Your task to perform on an android device: Clear the shopping cart on ebay.com. Image 0: 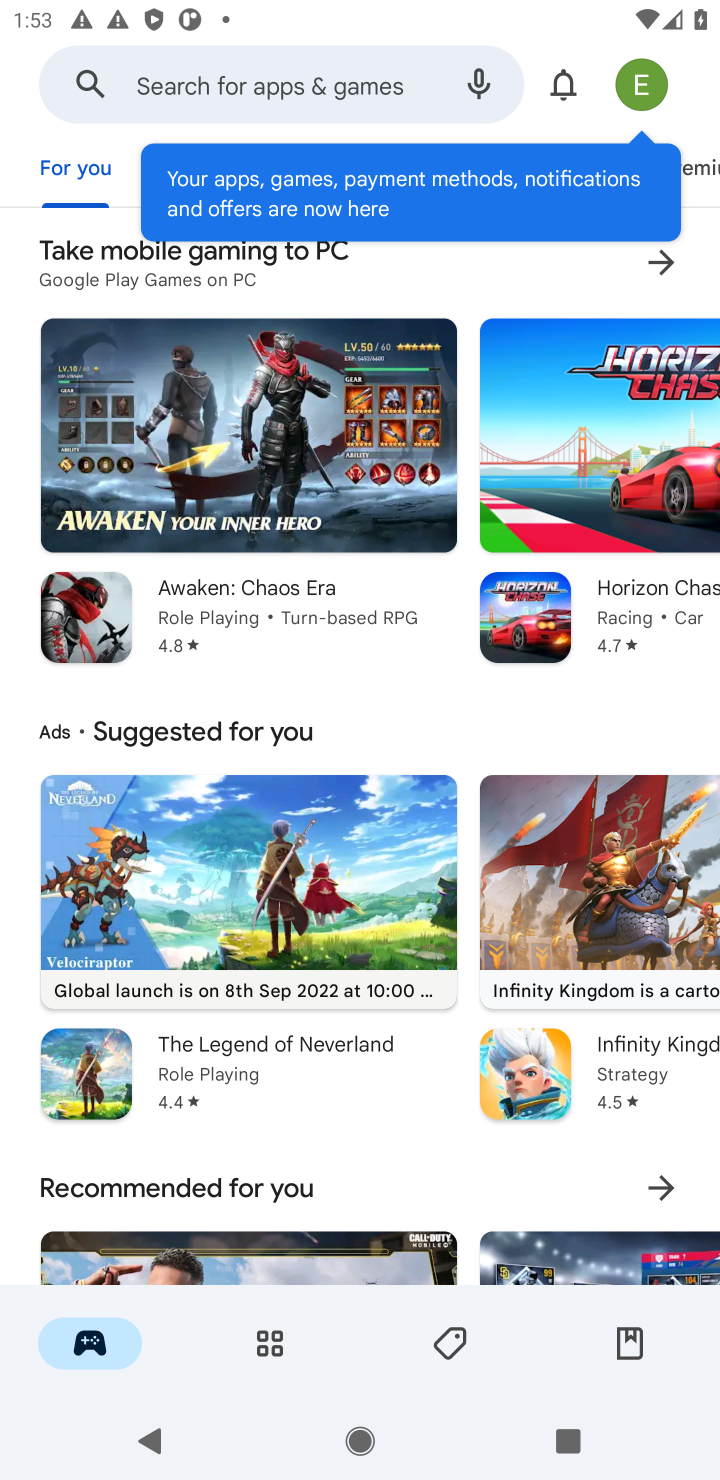
Step 0: press home button
Your task to perform on an android device: Clear the shopping cart on ebay.com. Image 1: 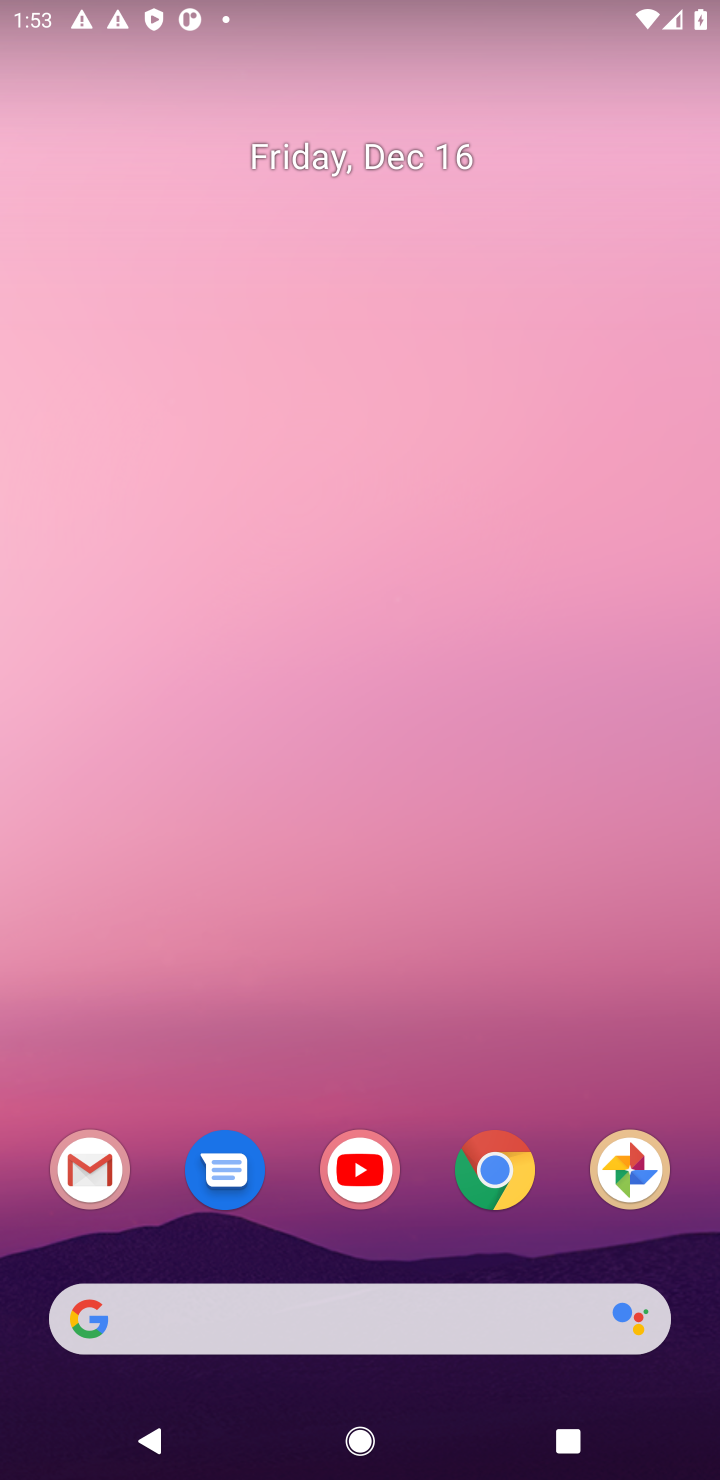
Step 1: click (484, 1169)
Your task to perform on an android device: Clear the shopping cart on ebay.com. Image 2: 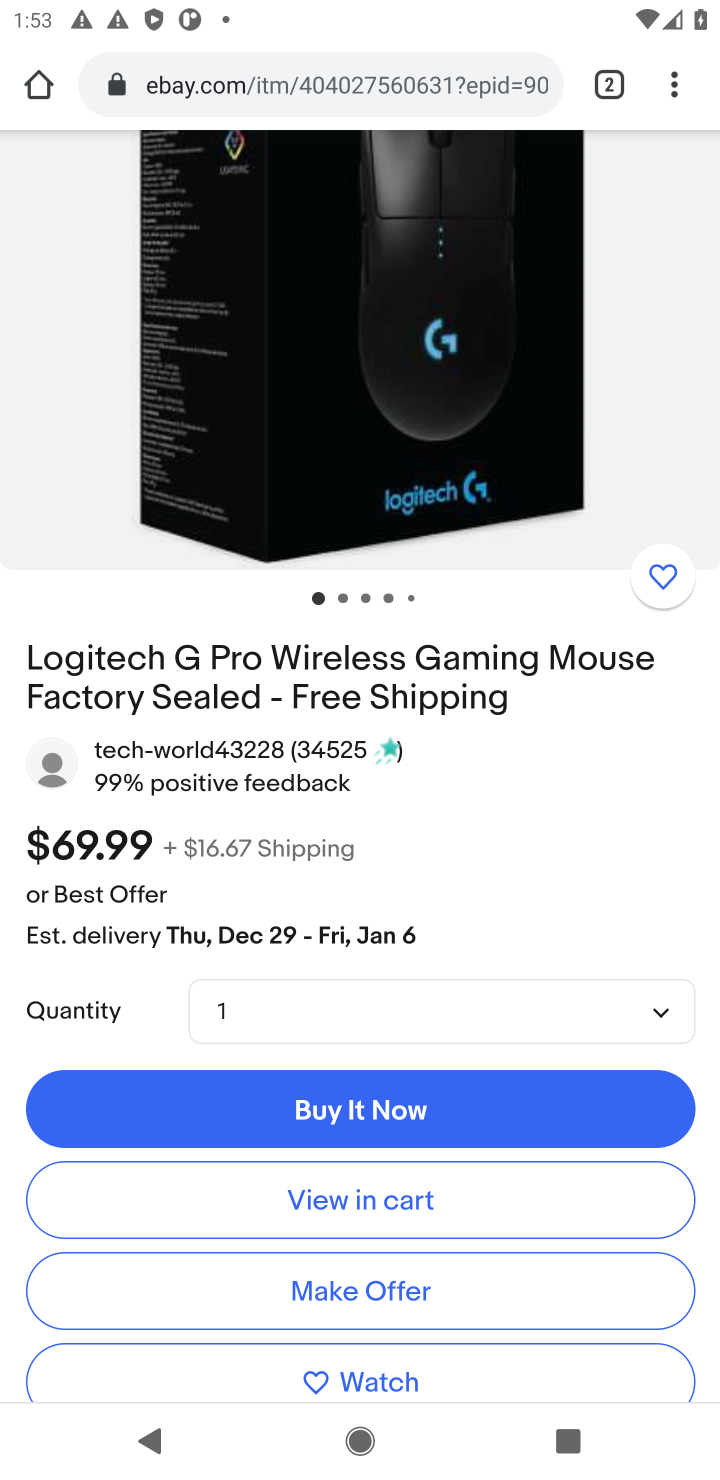
Step 2: drag from (268, 374) to (267, 971)
Your task to perform on an android device: Clear the shopping cart on ebay.com. Image 3: 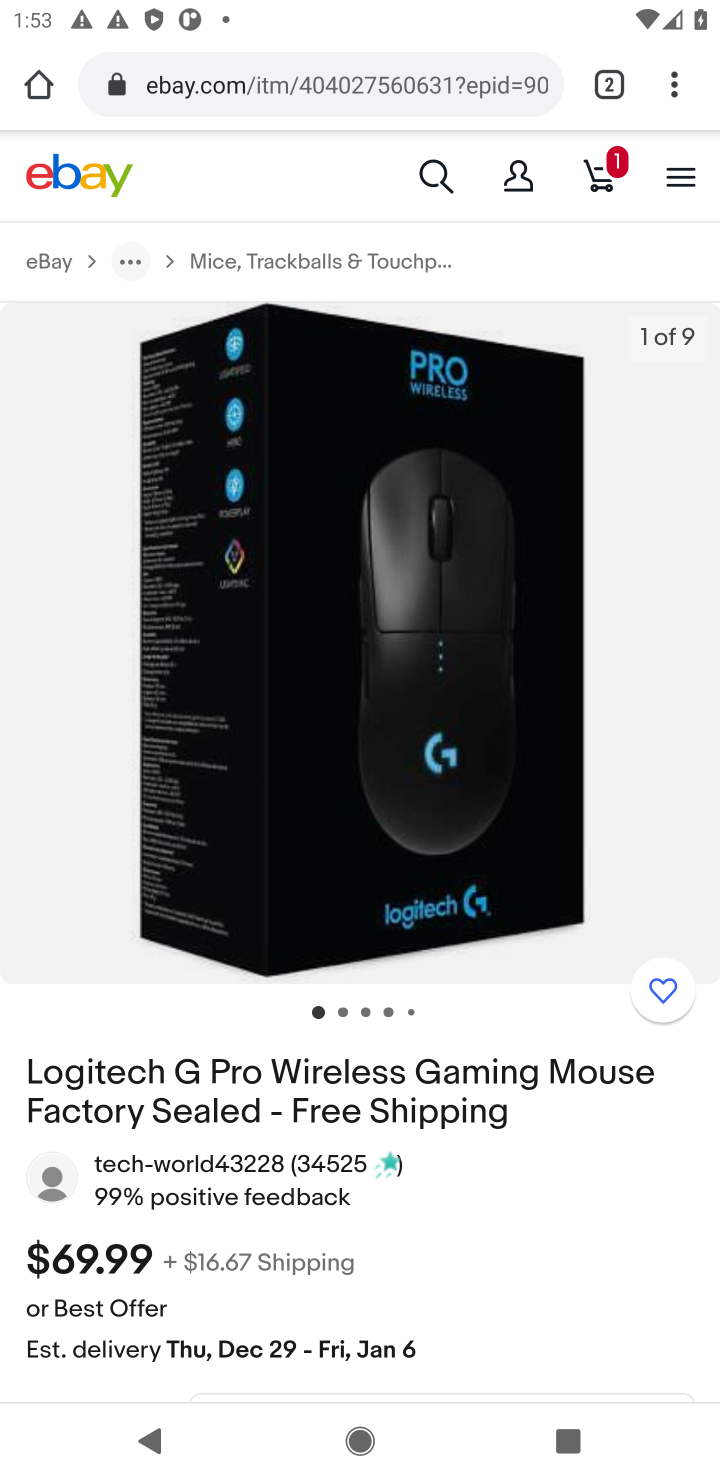
Step 3: click (597, 173)
Your task to perform on an android device: Clear the shopping cart on ebay.com. Image 4: 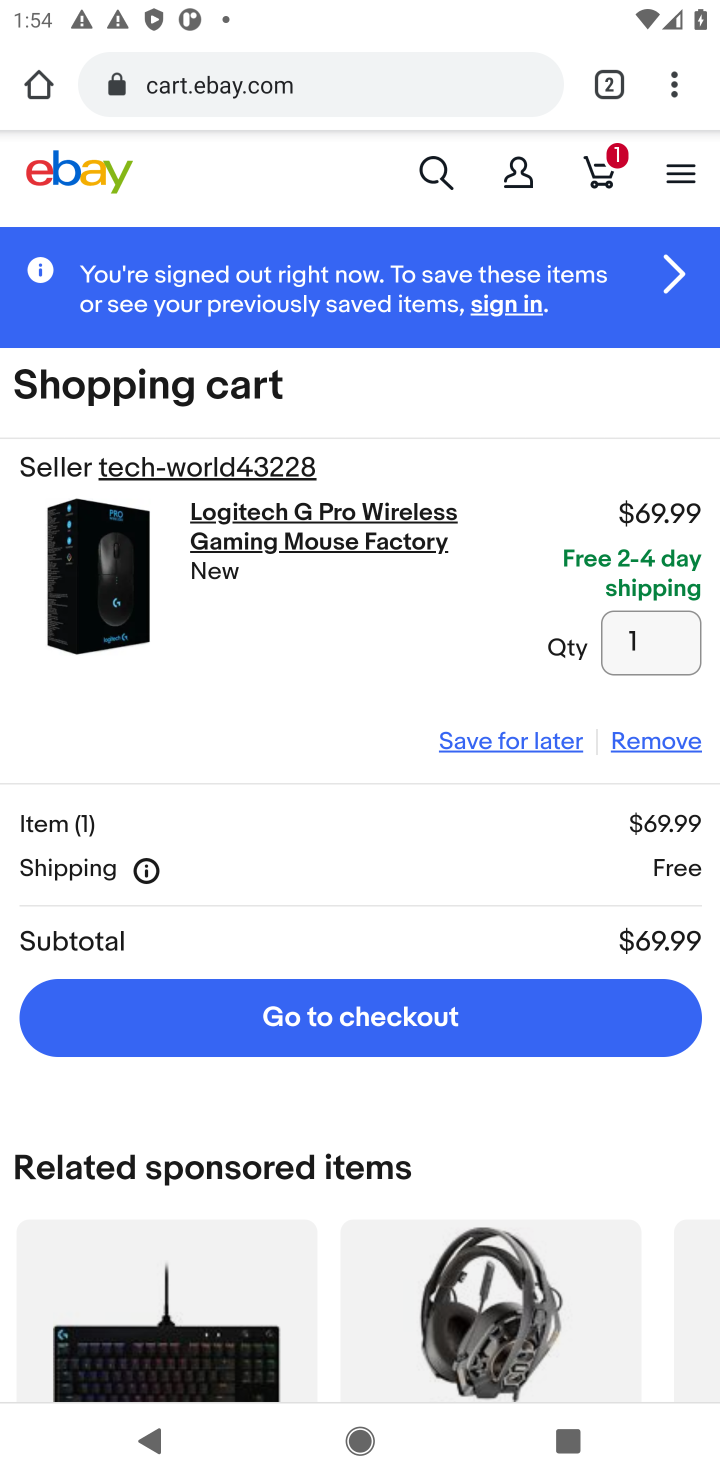
Step 4: click (636, 747)
Your task to perform on an android device: Clear the shopping cart on ebay.com. Image 5: 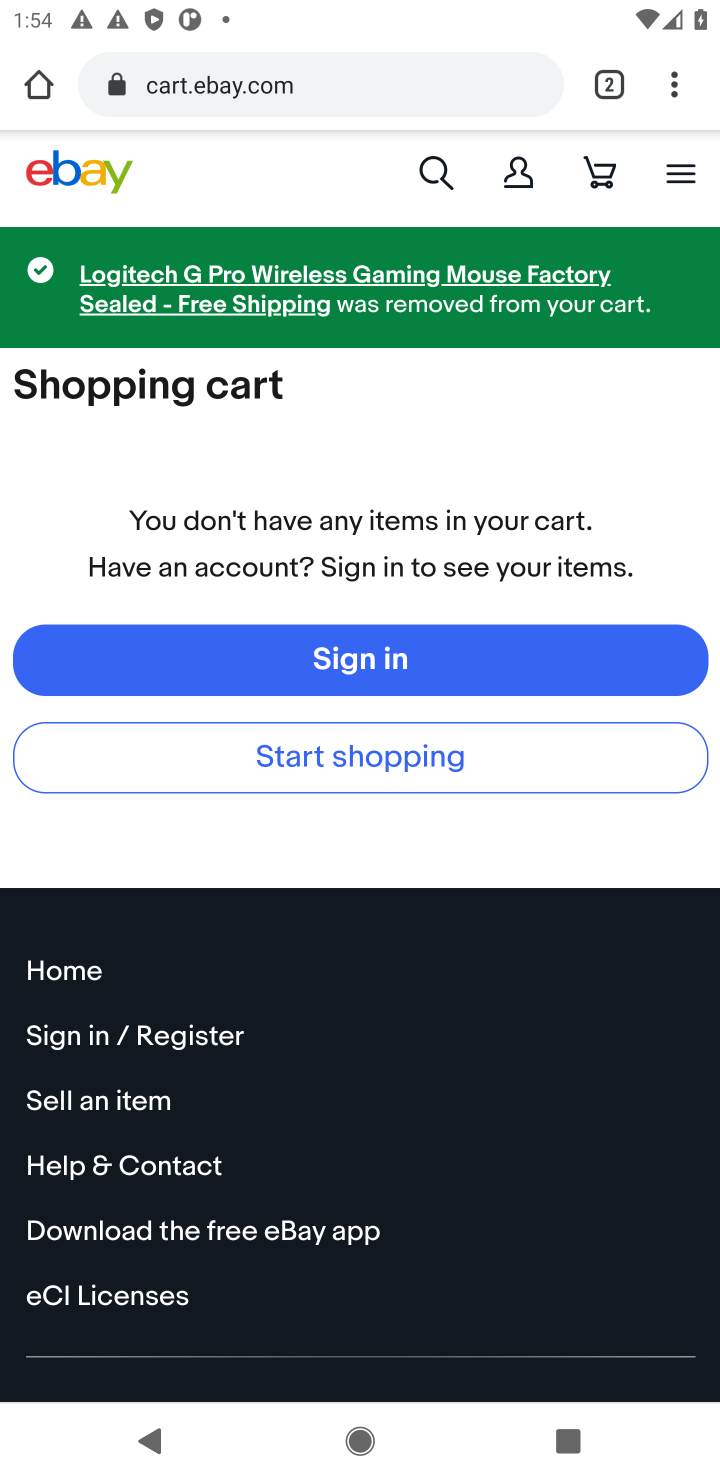
Step 5: task complete